Your task to perform on an android device: Open ESPN.com Image 0: 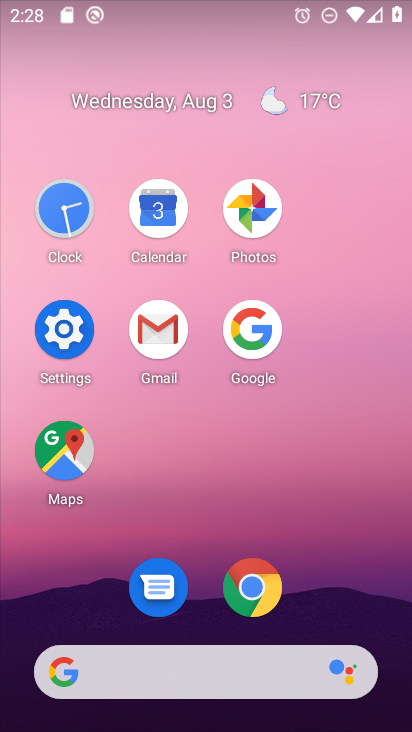
Step 0: click (235, 588)
Your task to perform on an android device: Open ESPN.com Image 1: 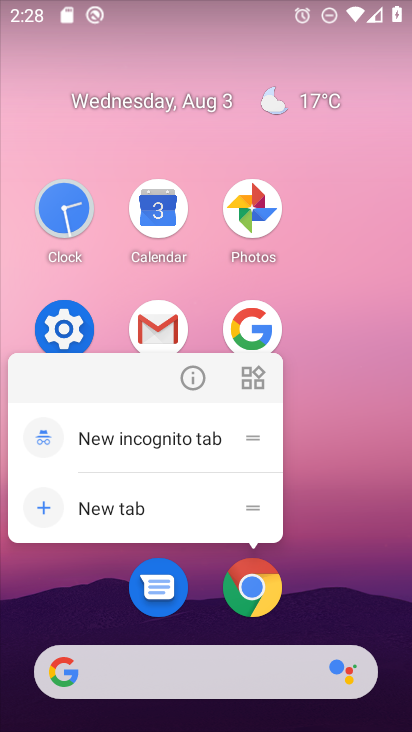
Step 1: click (241, 592)
Your task to perform on an android device: Open ESPN.com Image 2: 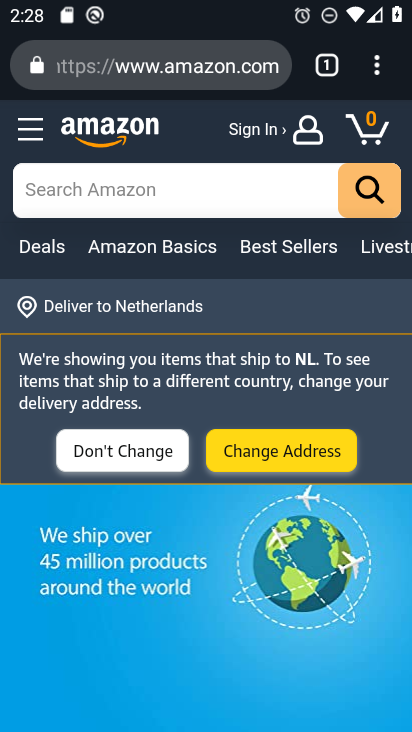
Step 2: drag from (330, 67) to (400, 66)
Your task to perform on an android device: Open ESPN.com Image 3: 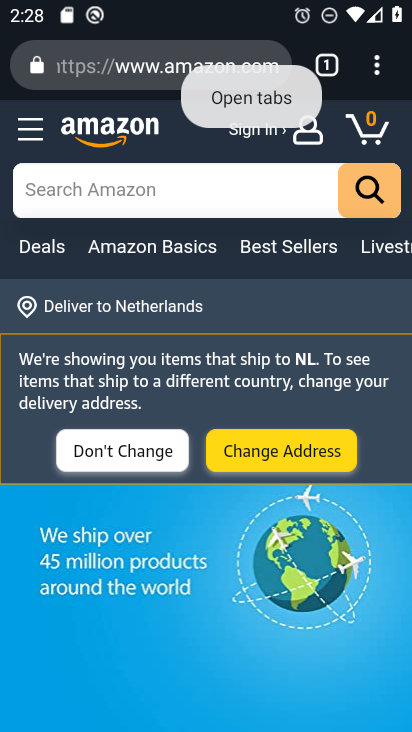
Step 3: click (335, 66)
Your task to perform on an android device: Open ESPN.com Image 4: 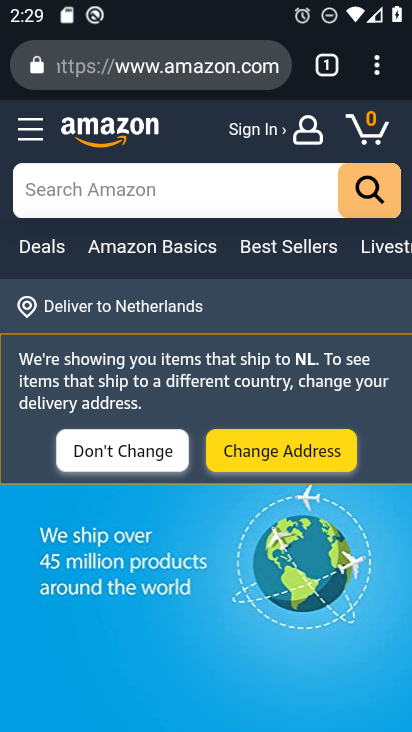
Step 4: click (333, 60)
Your task to perform on an android device: Open ESPN.com Image 5: 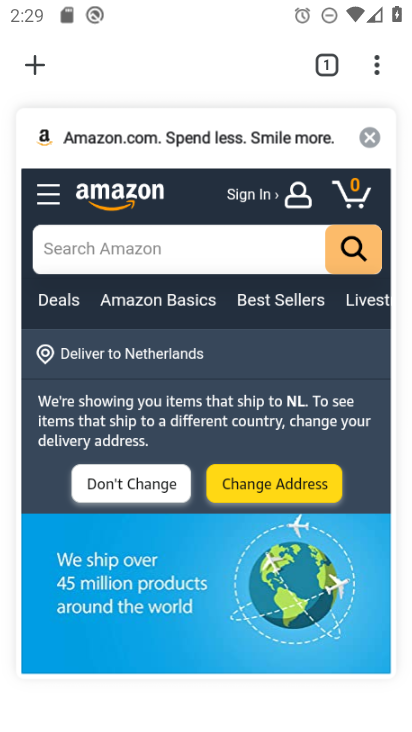
Step 5: click (45, 68)
Your task to perform on an android device: Open ESPN.com Image 6: 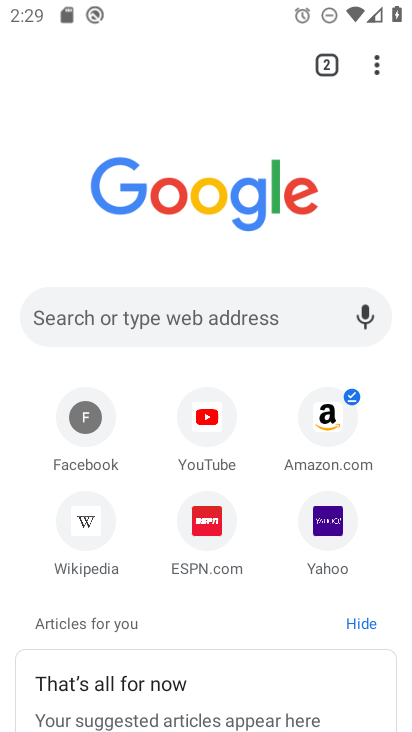
Step 6: click (207, 516)
Your task to perform on an android device: Open ESPN.com Image 7: 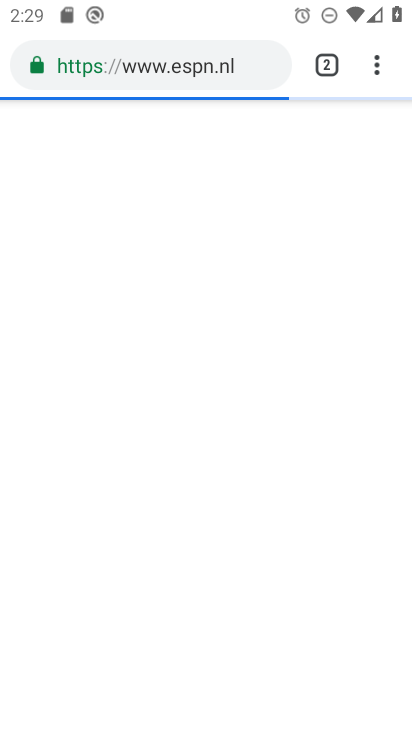
Step 7: task complete